Your task to perform on an android device: Search for dining room chairs on Crate & Barrel Image 0: 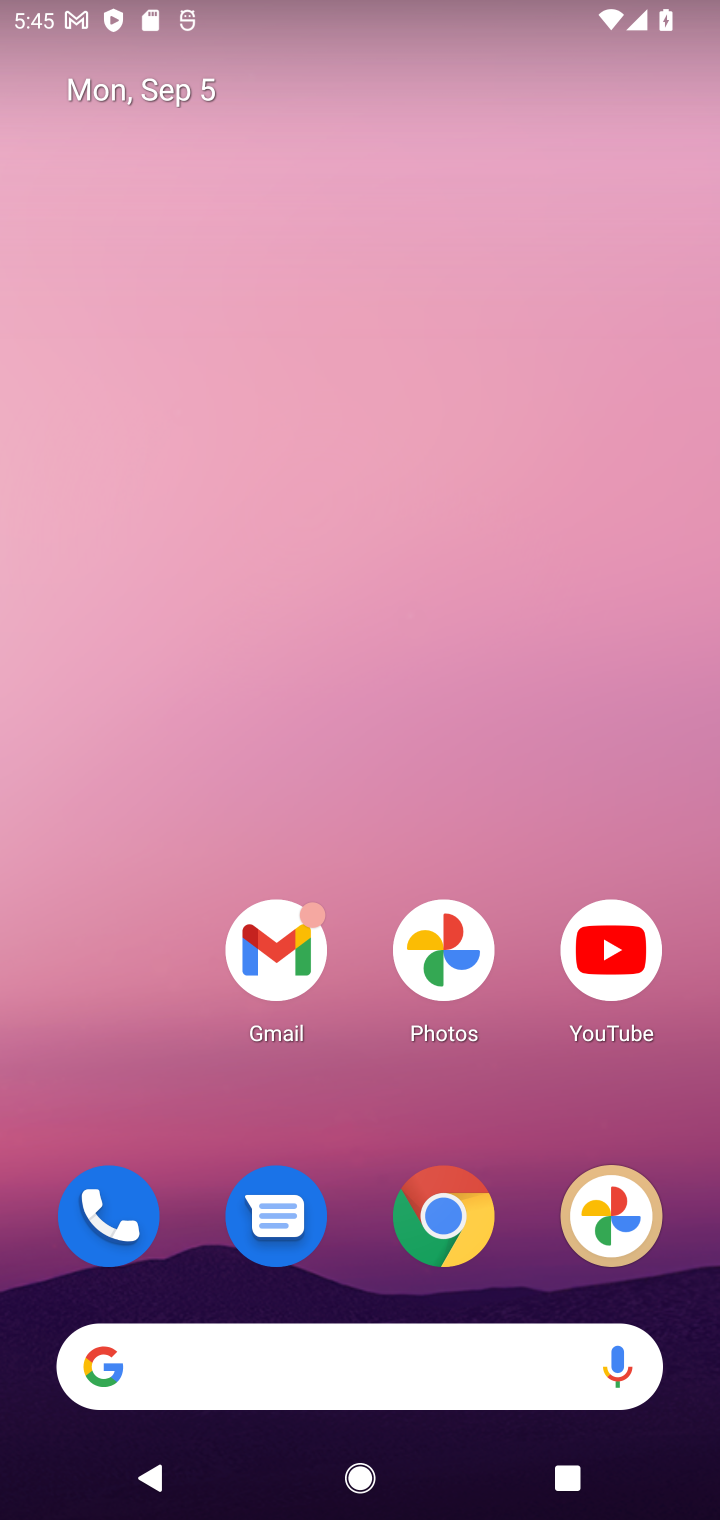
Step 0: click (438, 1224)
Your task to perform on an android device: Search for dining room chairs on Crate & Barrel Image 1: 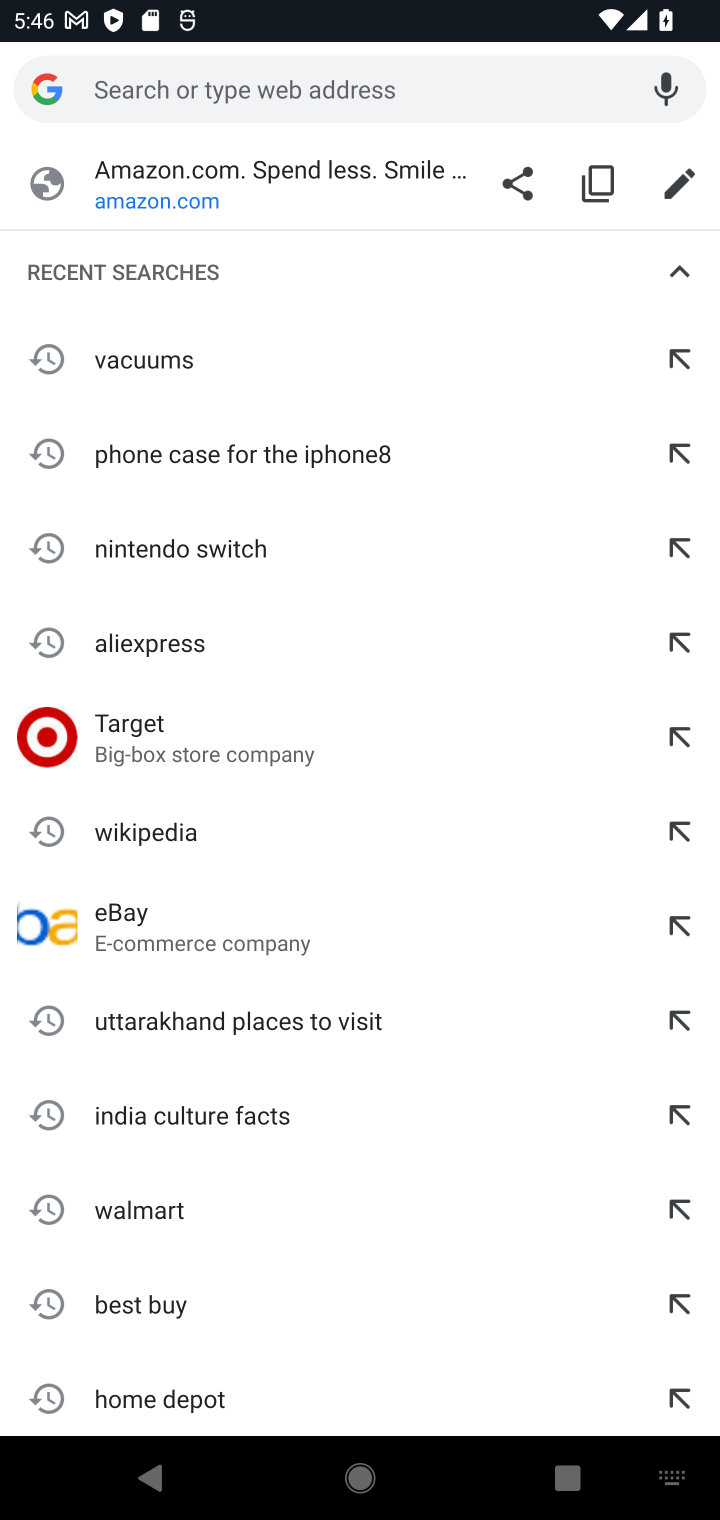
Step 1: click (314, 84)
Your task to perform on an android device: Search for dining room chairs on Crate & Barrel Image 2: 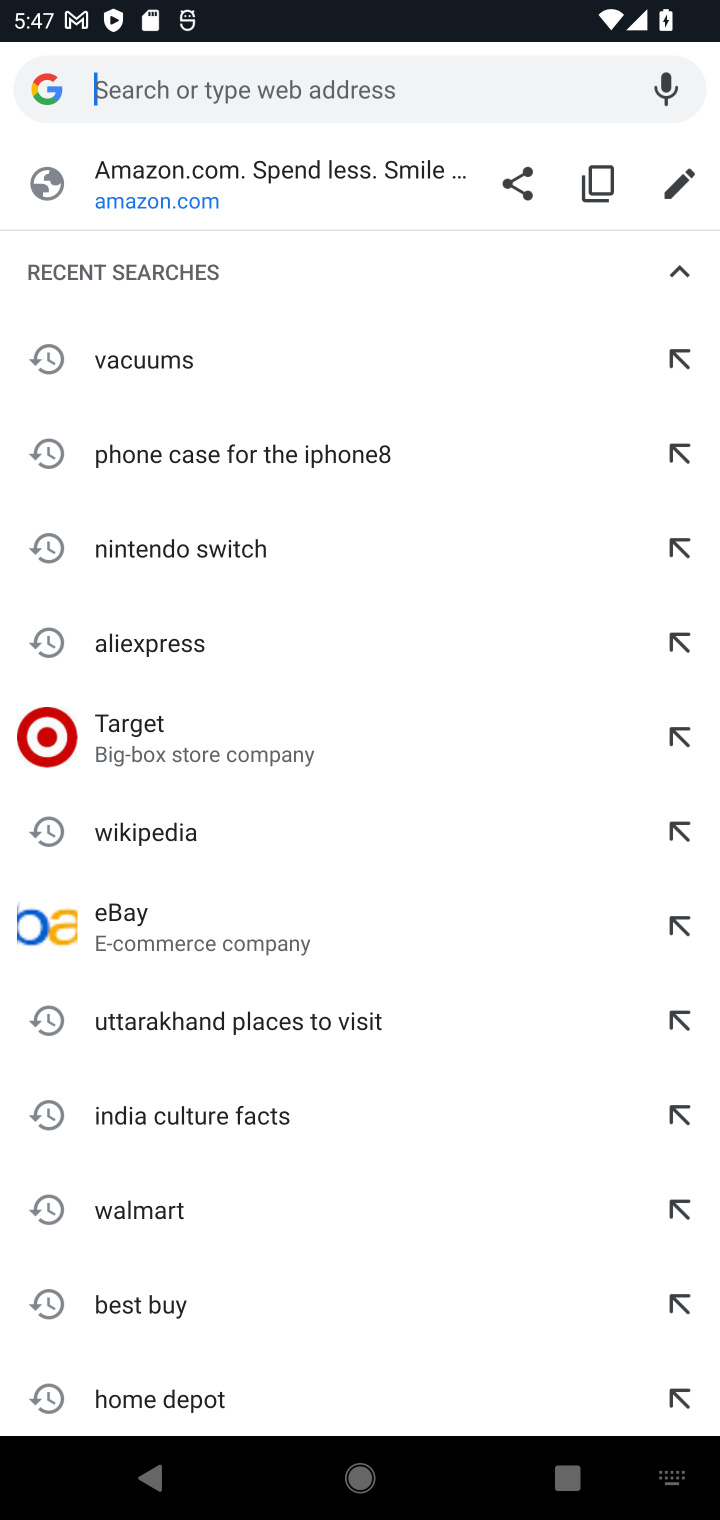
Step 2: type "crate & barrel"
Your task to perform on an android device: Search for dining room chairs on Crate & Barrel Image 3: 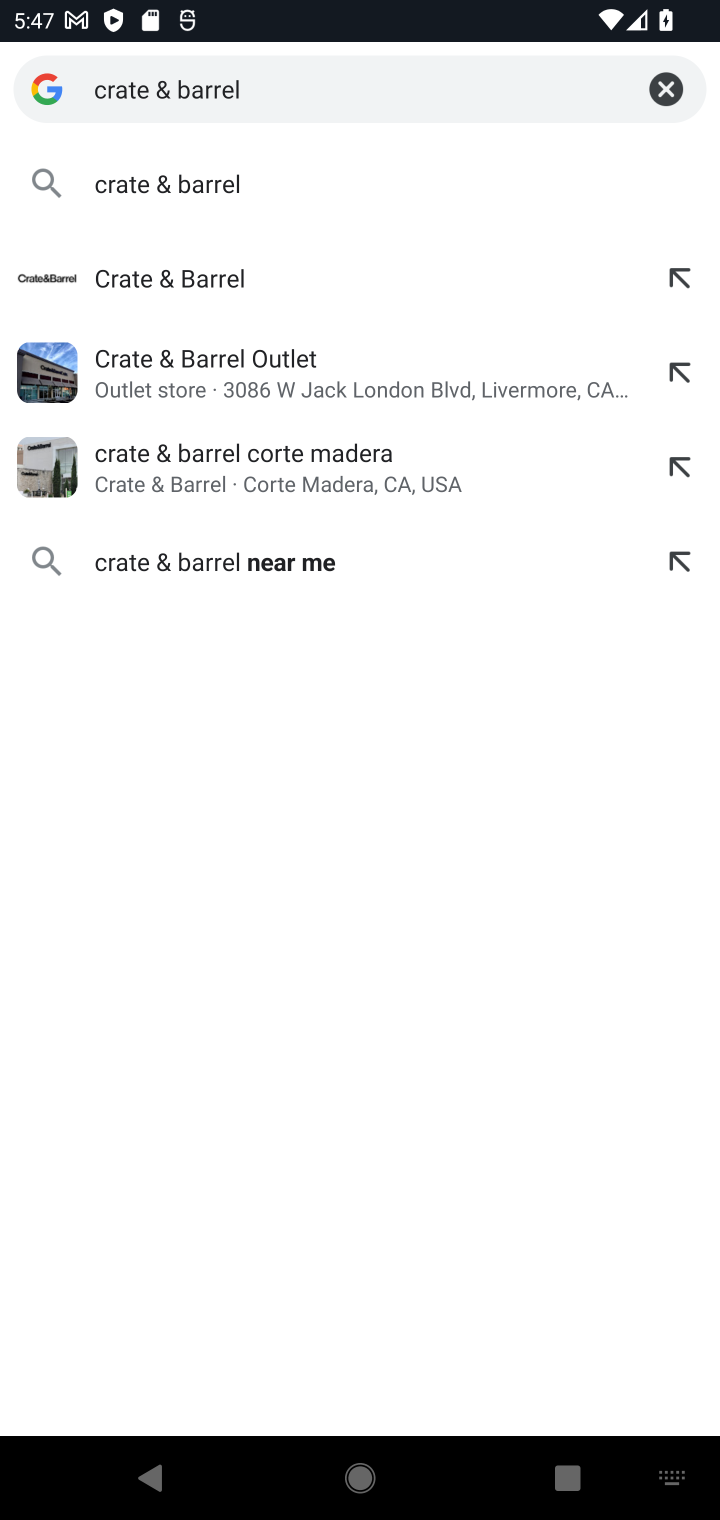
Step 3: click (159, 189)
Your task to perform on an android device: Search for dining room chairs on Crate & Barrel Image 4: 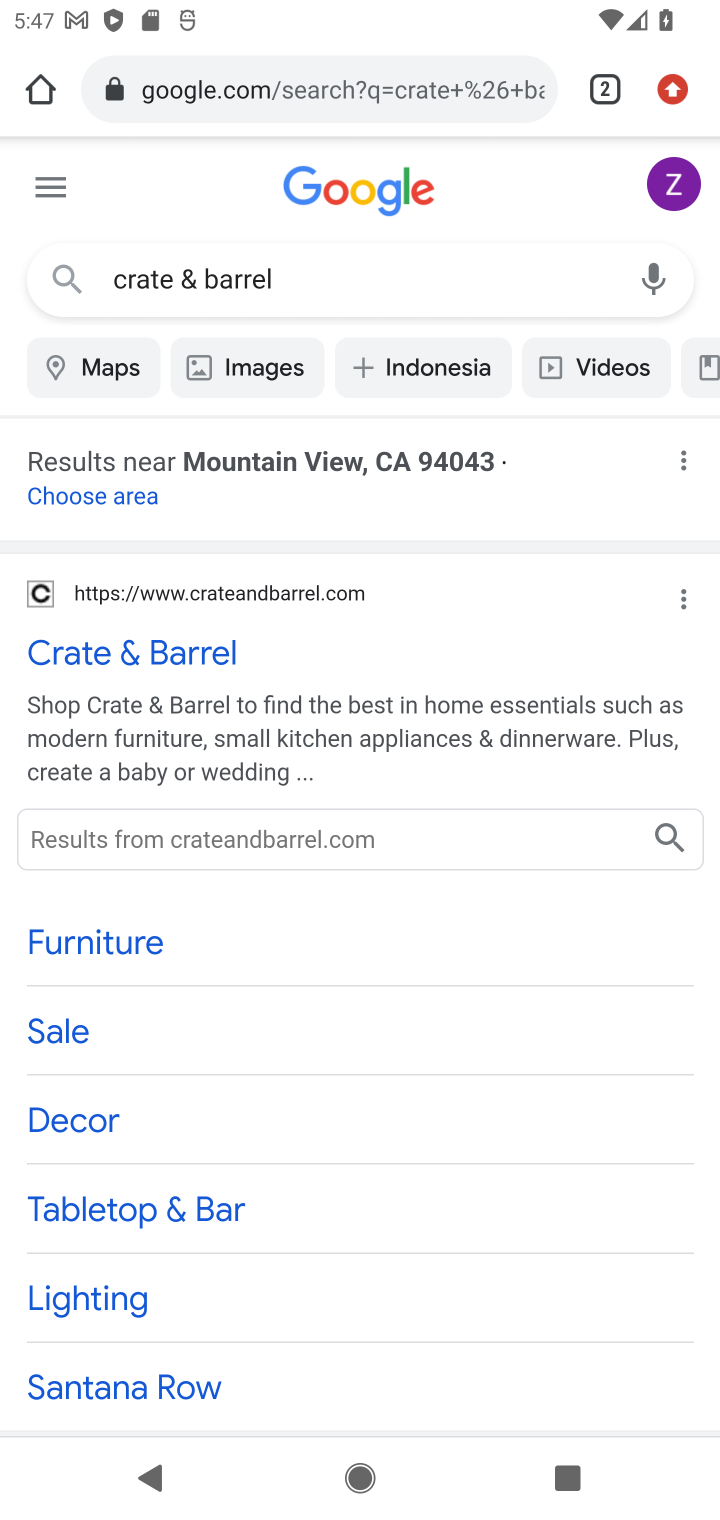
Step 4: click (125, 656)
Your task to perform on an android device: Search for dining room chairs on Crate & Barrel Image 5: 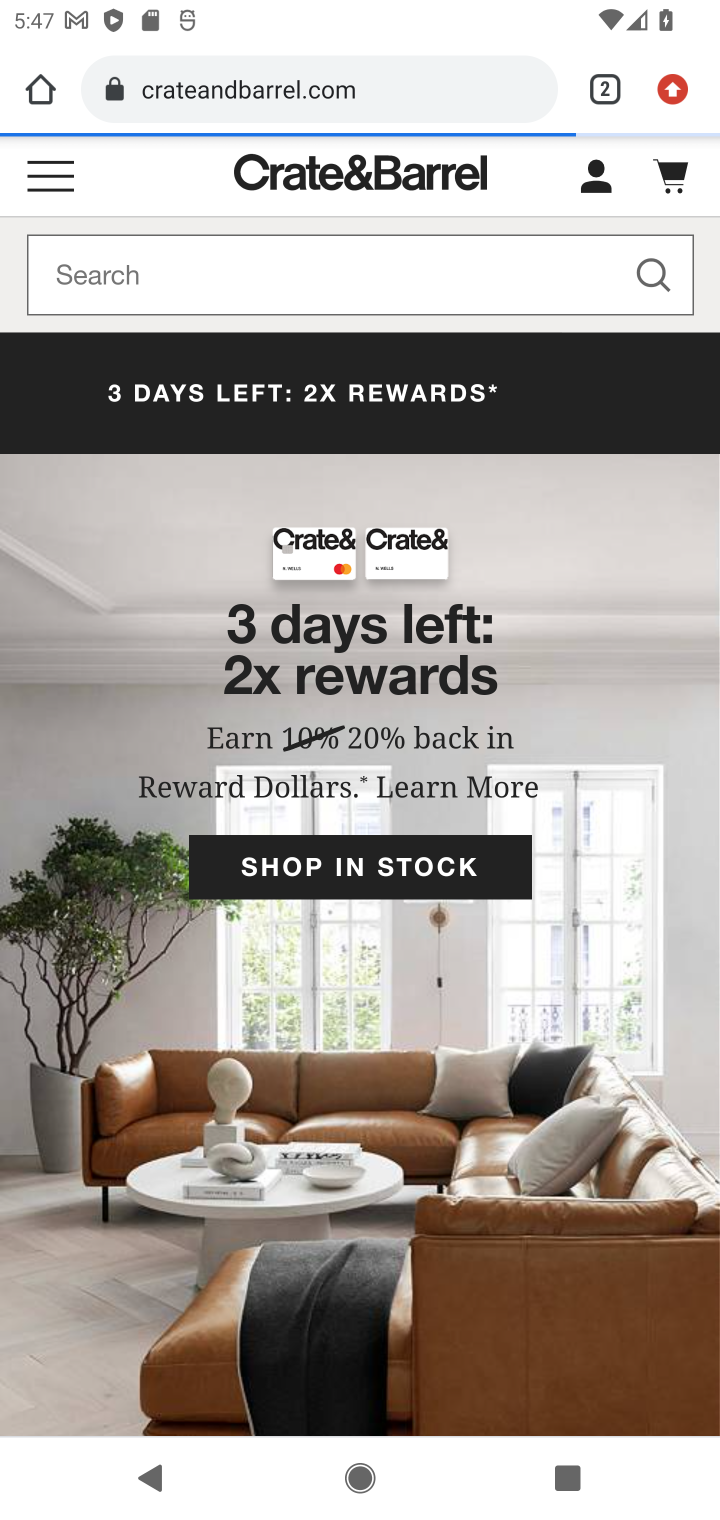
Step 5: click (381, 260)
Your task to perform on an android device: Search for dining room chairs on Crate & Barrel Image 6: 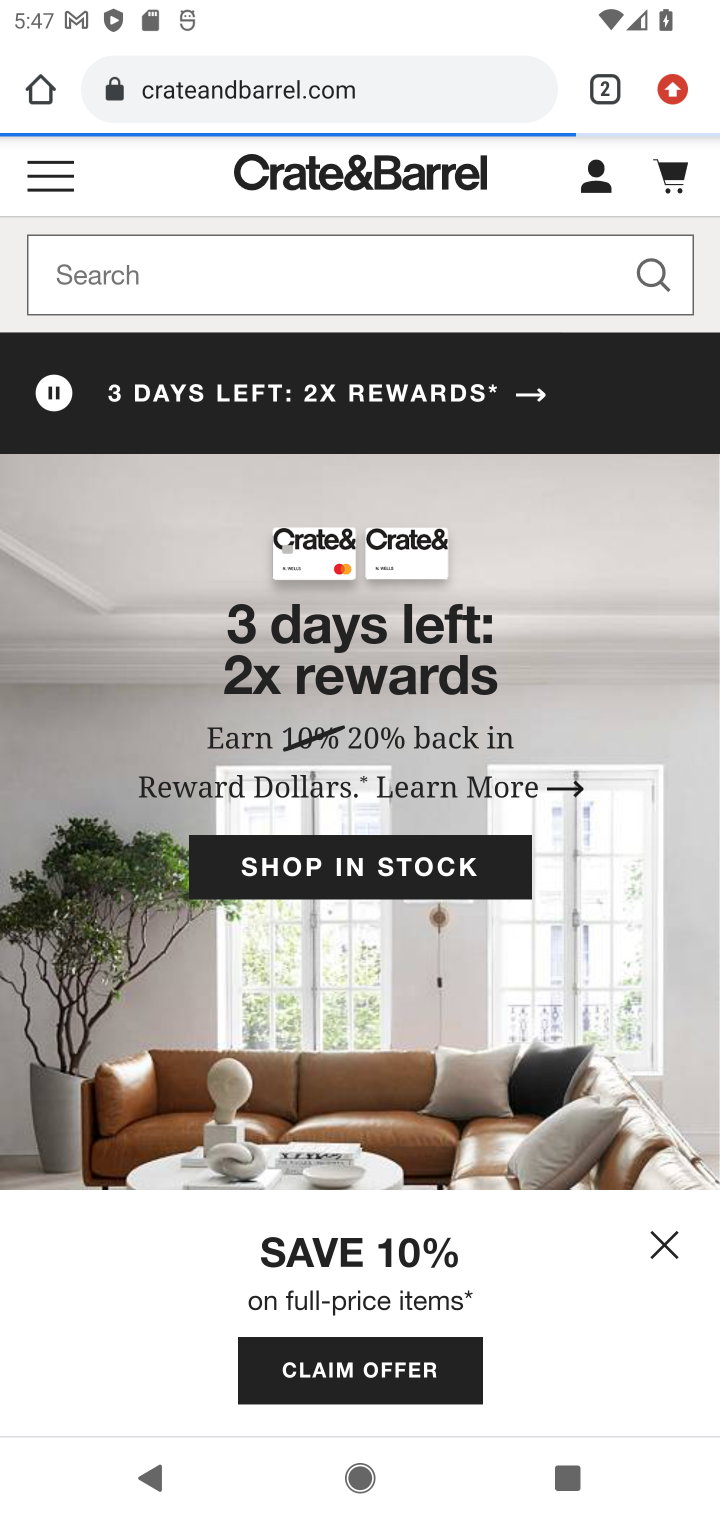
Step 6: click (381, 260)
Your task to perform on an android device: Search for dining room chairs on Crate & Barrel Image 7: 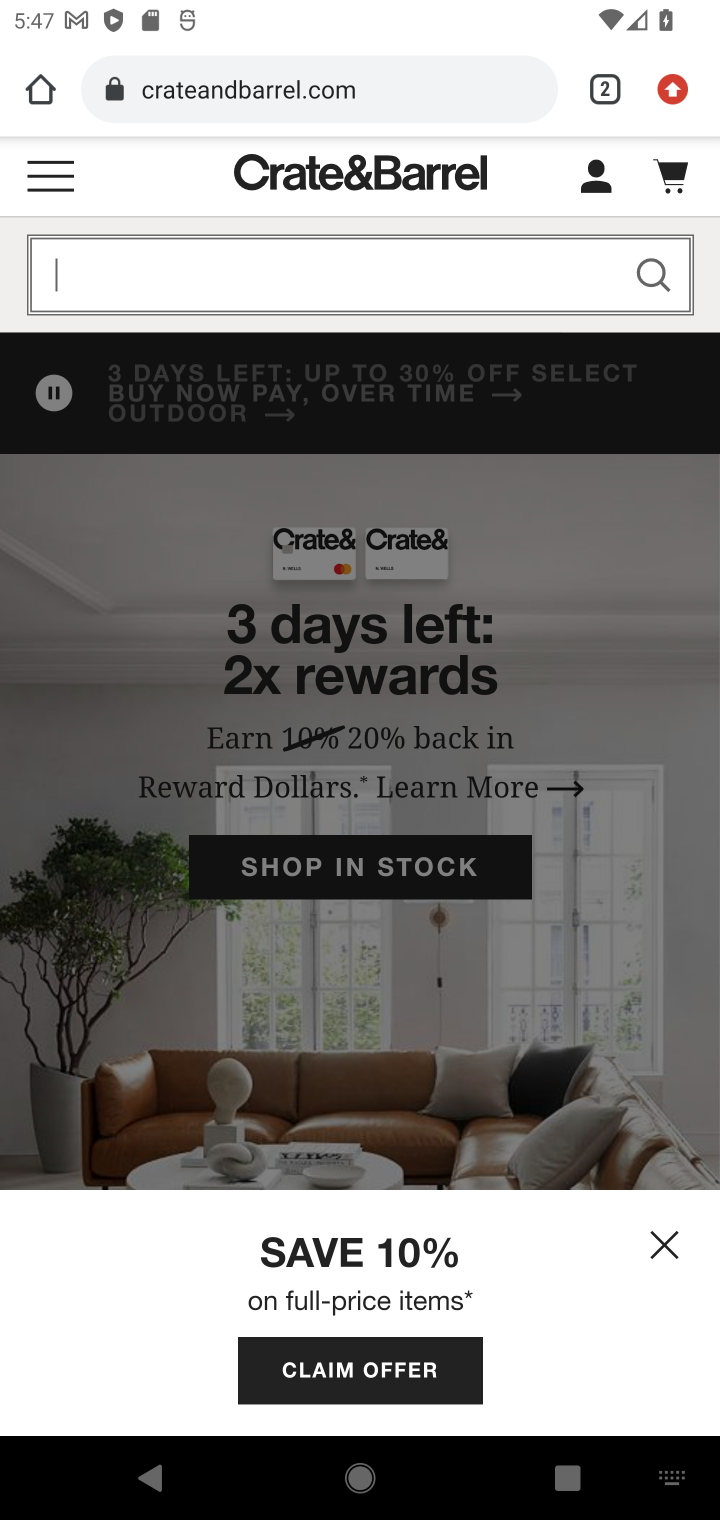
Step 7: type "dining room chairs"
Your task to perform on an android device: Search for dining room chairs on Crate & Barrel Image 8: 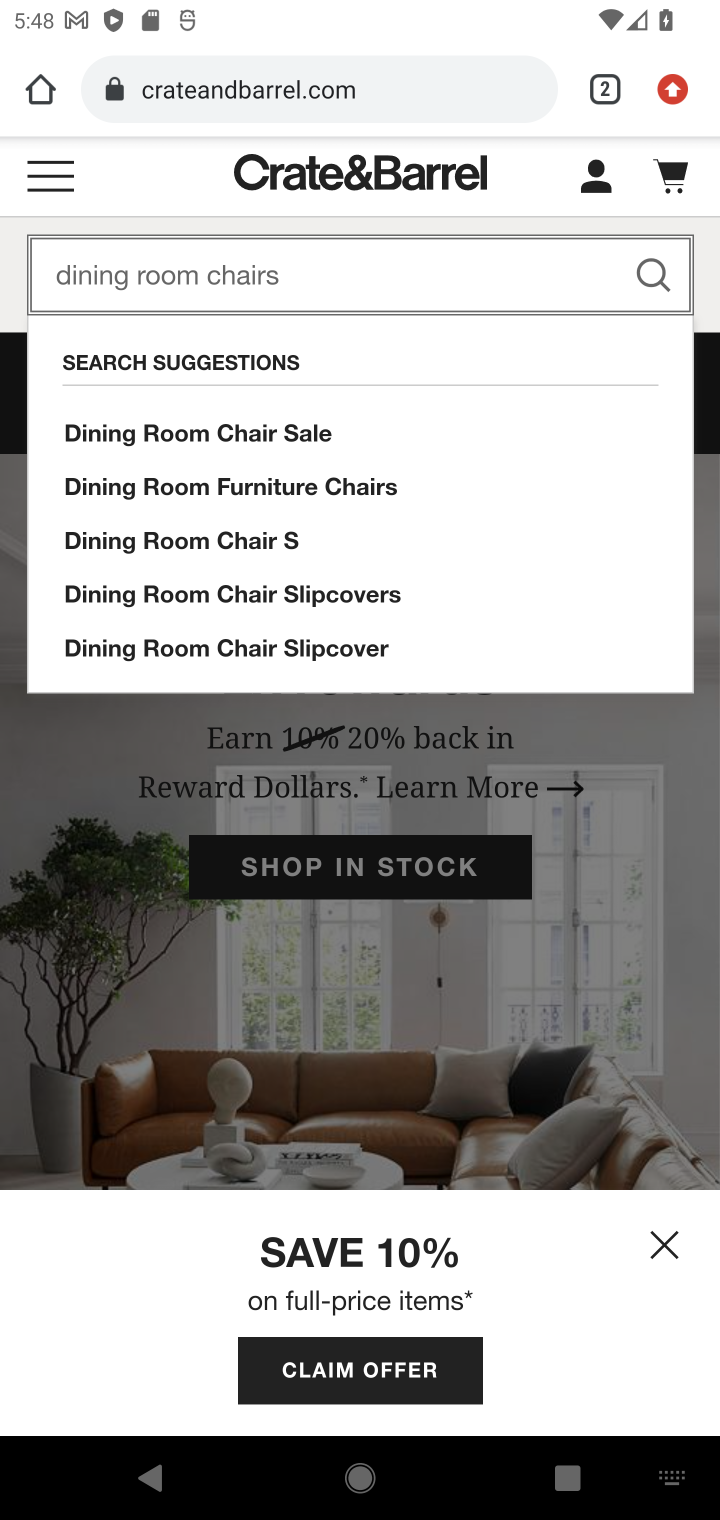
Step 8: click (219, 552)
Your task to perform on an android device: Search for dining room chairs on Crate & Barrel Image 9: 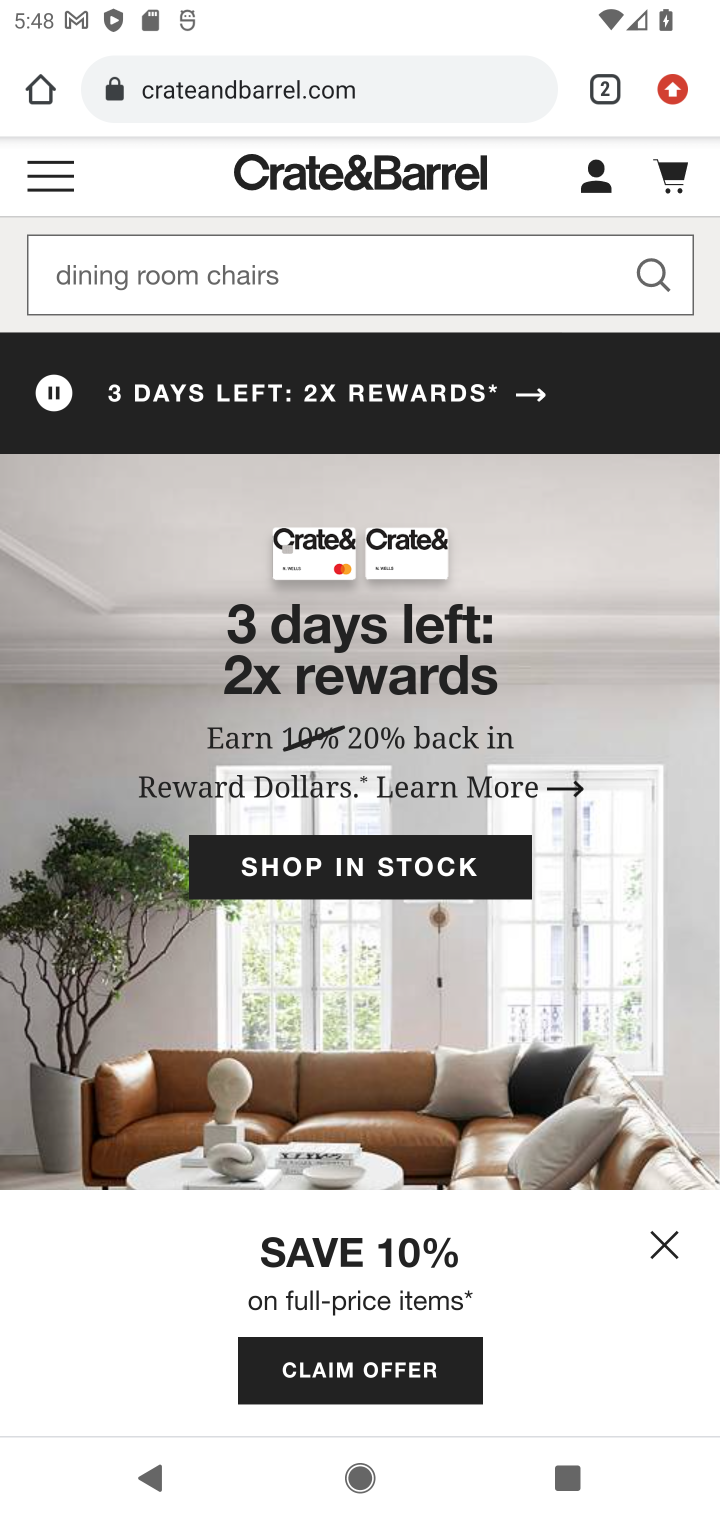
Step 9: task complete